Your task to perform on an android device: Open wifi settings Image 0: 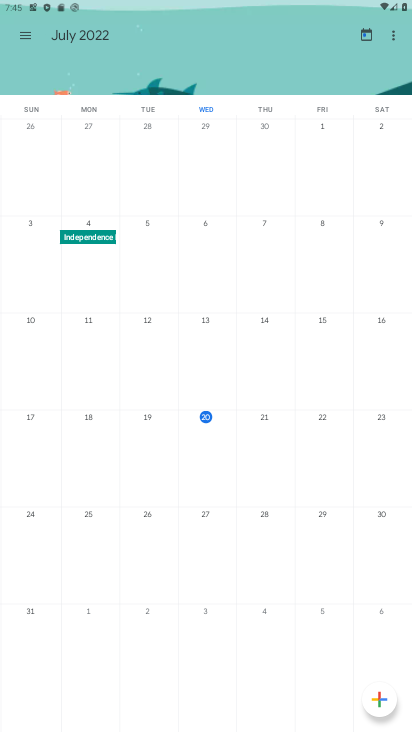
Step 0: press home button
Your task to perform on an android device: Open wifi settings Image 1: 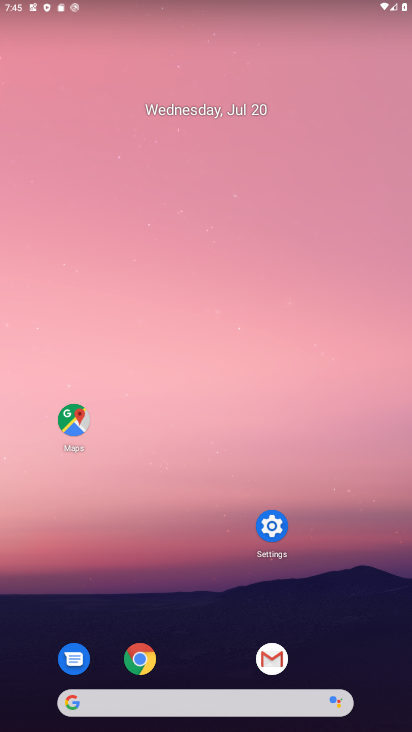
Step 1: click (272, 530)
Your task to perform on an android device: Open wifi settings Image 2: 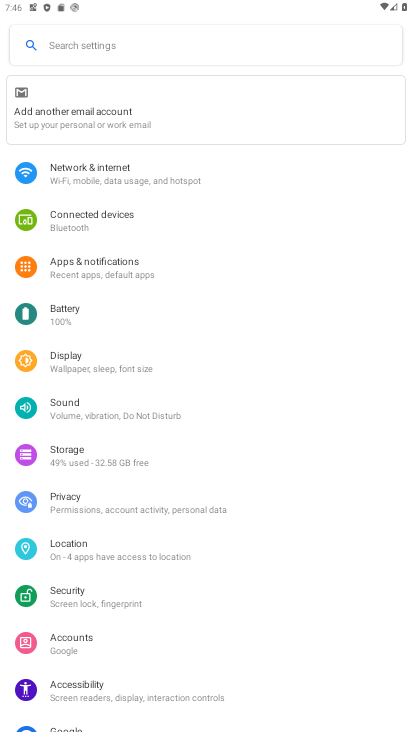
Step 2: click (169, 179)
Your task to perform on an android device: Open wifi settings Image 3: 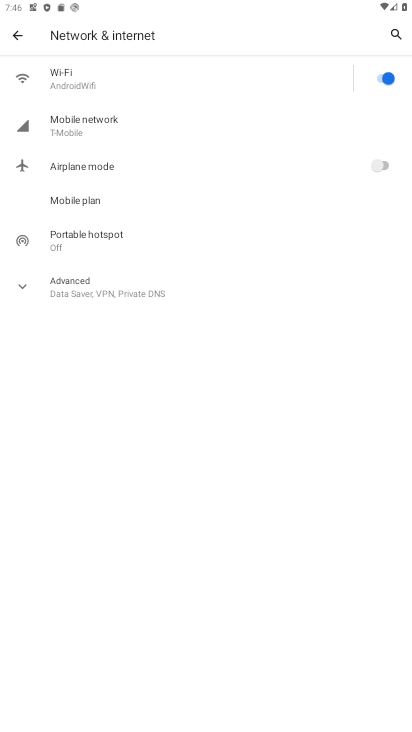
Step 3: task complete